Your task to perform on an android device: empty trash in the gmail app Image 0: 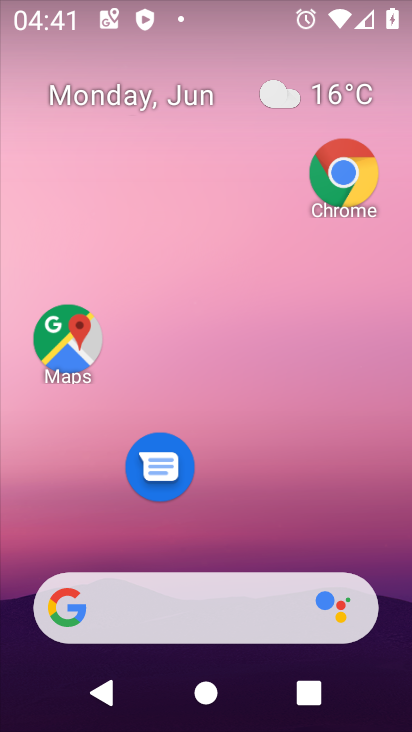
Step 0: drag from (228, 538) to (261, 47)
Your task to perform on an android device: empty trash in the gmail app Image 1: 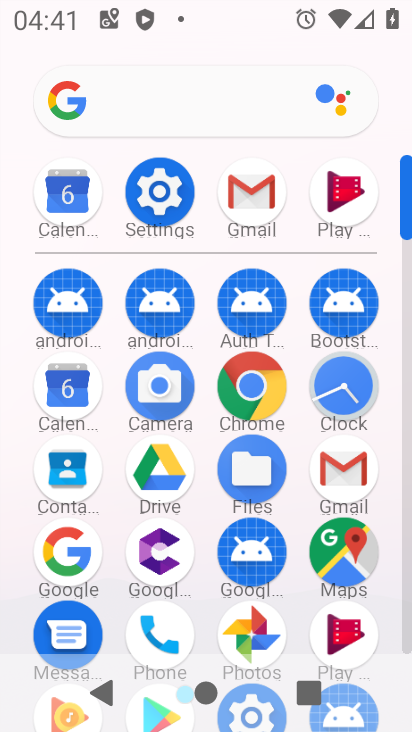
Step 1: click (346, 462)
Your task to perform on an android device: empty trash in the gmail app Image 2: 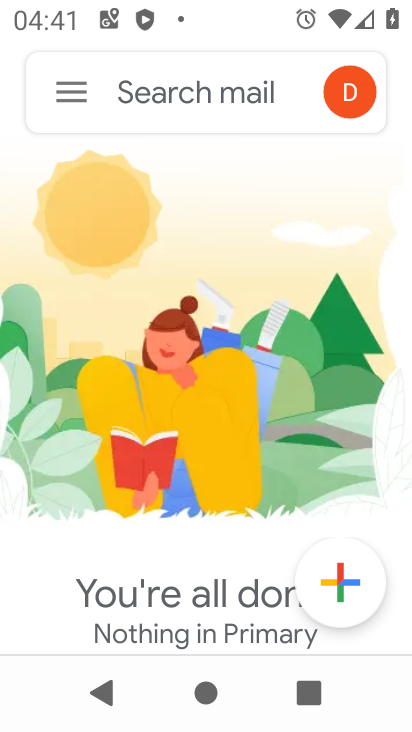
Step 2: click (72, 95)
Your task to perform on an android device: empty trash in the gmail app Image 3: 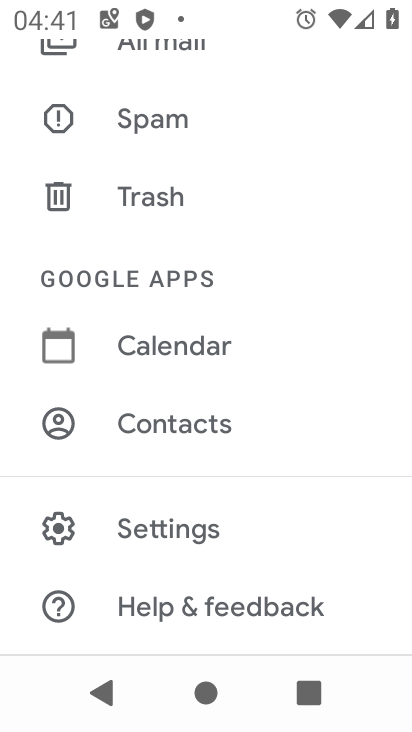
Step 3: click (156, 197)
Your task to perform on an android device: empty trash in the gmail app Image 4: 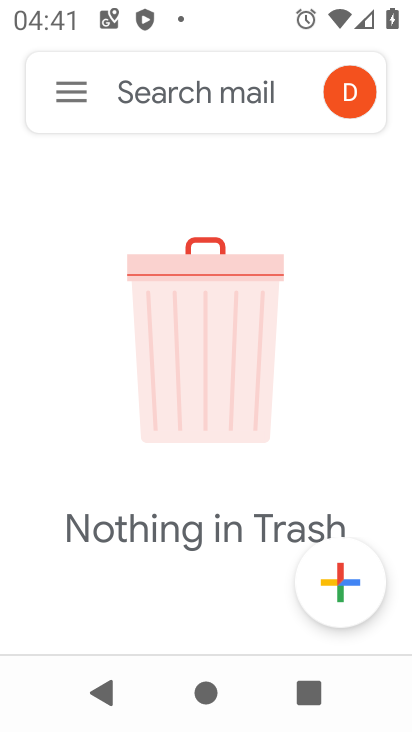
Step 4: task complete